Your task to perform on an android device: turn smart compose on in the gmail app Image 0: 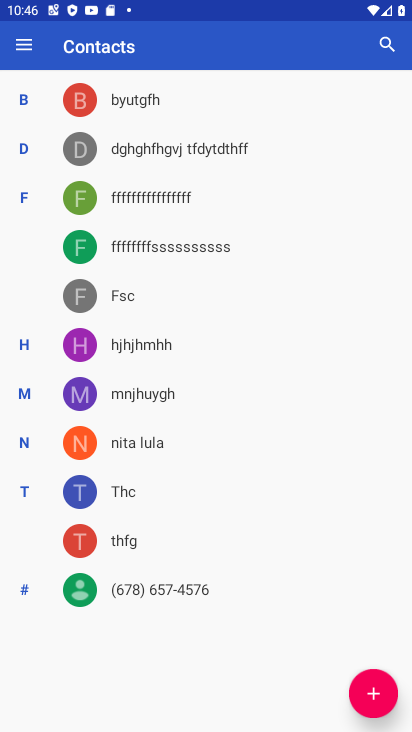
Step 0: press home button
Your task to perform on an android device: turn smart compose on in the gmail app Image 1: 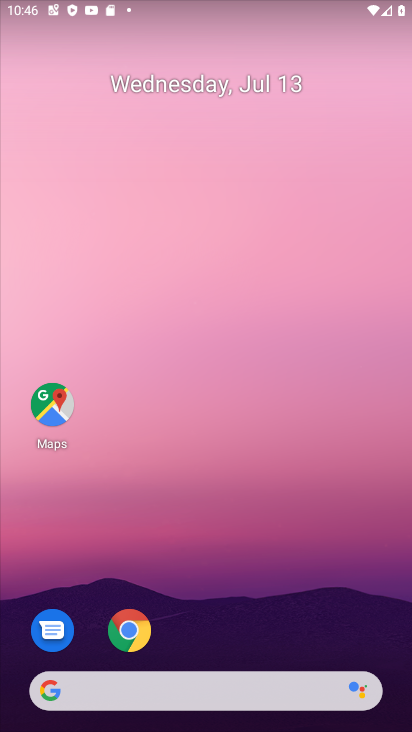
Step 1: drag from (258, 583) to (259, 1)
Your task to perform on an android device: turn smart compose on in the gmail app Image 2: 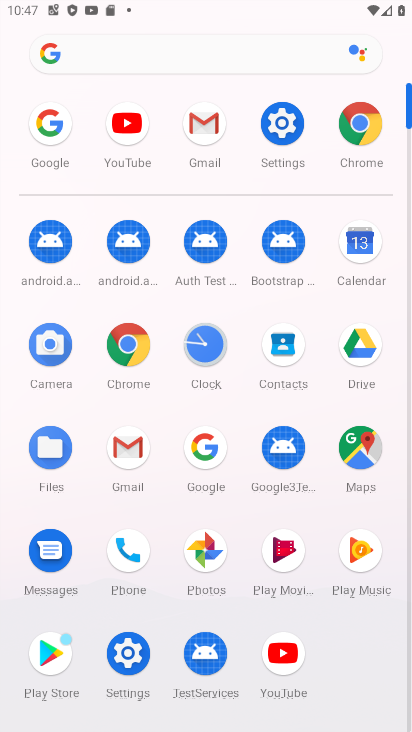
Step 2: click (199, 124)
Your task to perform on an android device: turn smart compose on in the gmail app Image 3: 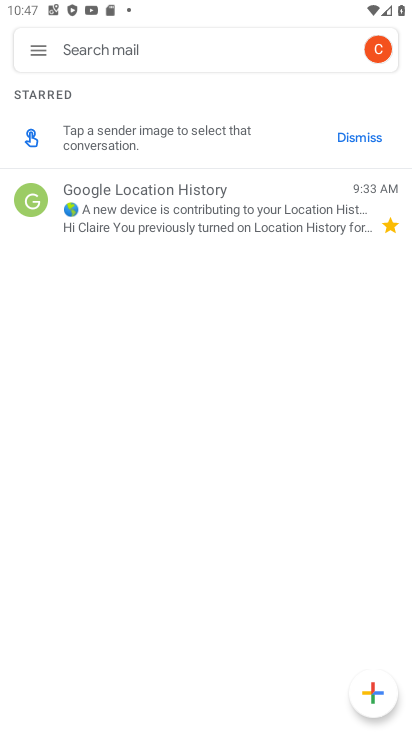
Step 3: click (25, 43)
Your task to perform on an android device: turn smart compose on in the gmail app Image 4: 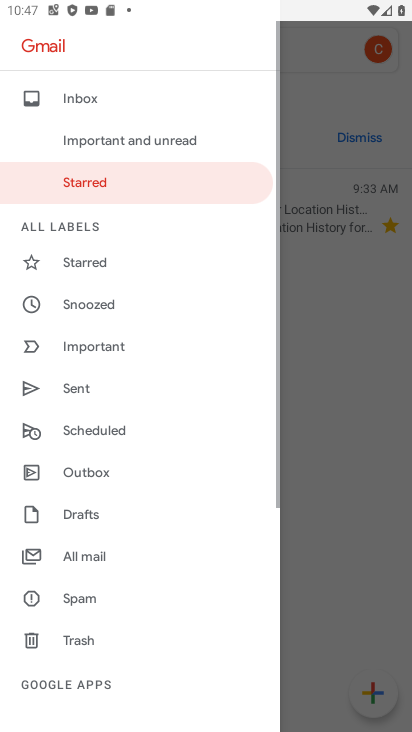
Step 4: drag from (126, 636) to (152, 152)
Your task to perform on an android device: turn smart compose on in the gmail app Image 5: 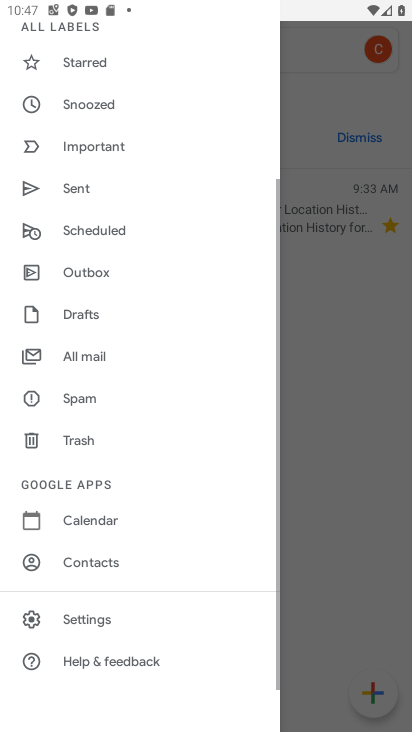
Step 5: click (92, 620)
Your task to perform on an android device: turn smart compose on in the gmail app Image 6: 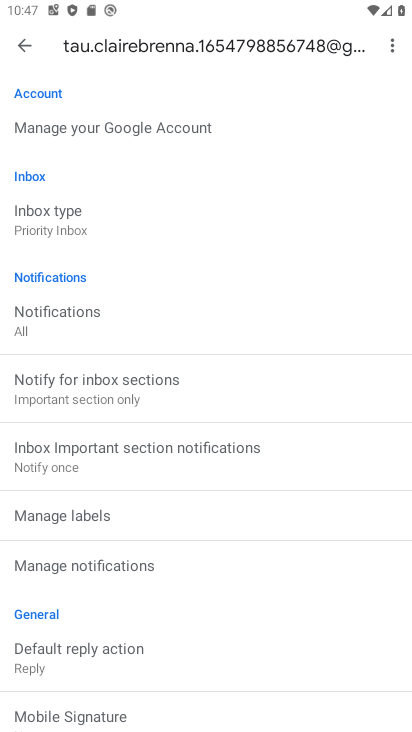
Step 6: drag from (159, 655) to (200, 212)
Your task to perform on an android device: turn smart compose on in the gmail app Image 7: 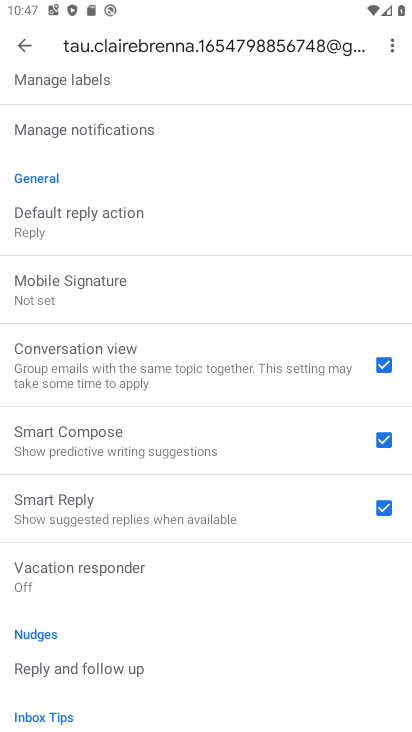
Step 7: click (88, 442)
Your task to perform on an android device: turn smart compose on in the gmail app Image 8: 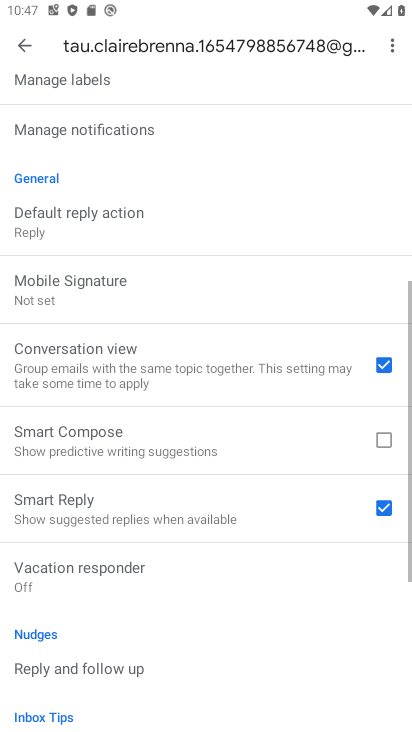
Step 8: click (88, 440)
Your task to perform on an android device: turn smart compose on in the gmail app Image 9: 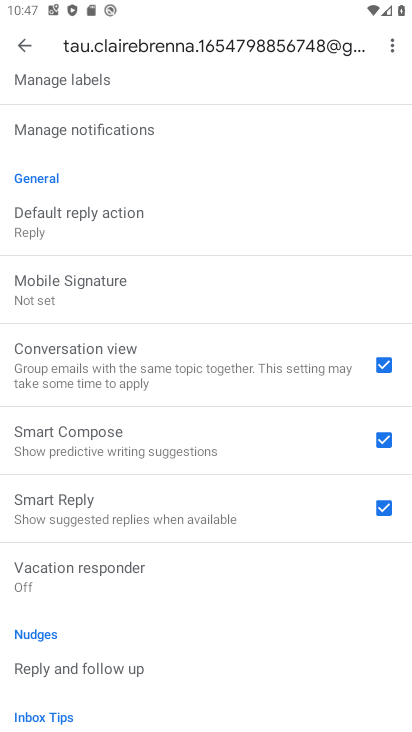
Step 9: task complete